Your task to perform on an android device: toggle translation in the chrome app Image 0: 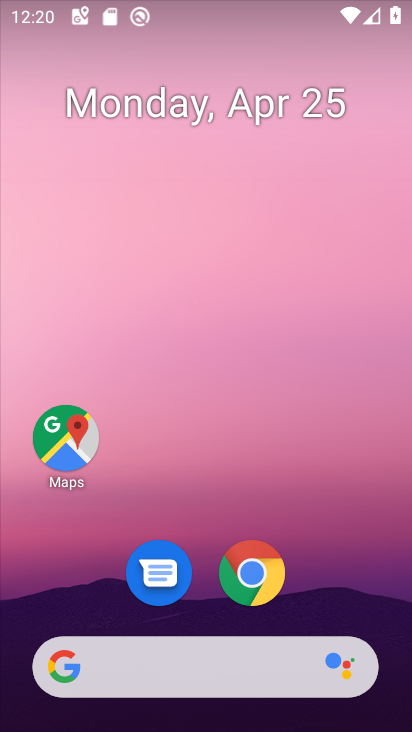
Step 0: press home button
Your task to perform on an android device: toggle translation in the chrome app Image 1: 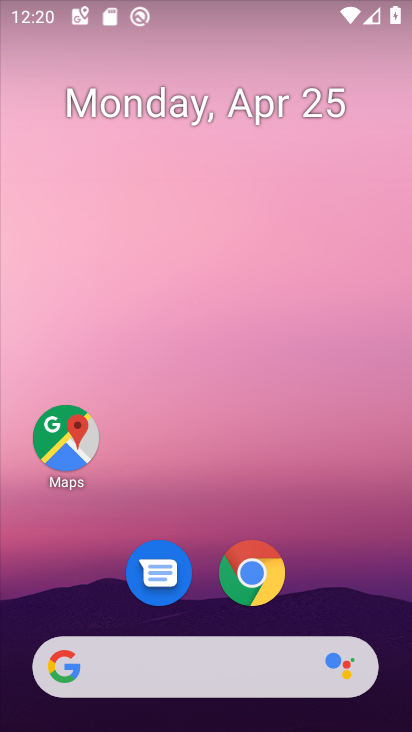
Step 1: drag from (267, 707) to (162, 154)
Your task to perform on an android device: toggle translation in the chrome app Image 2: 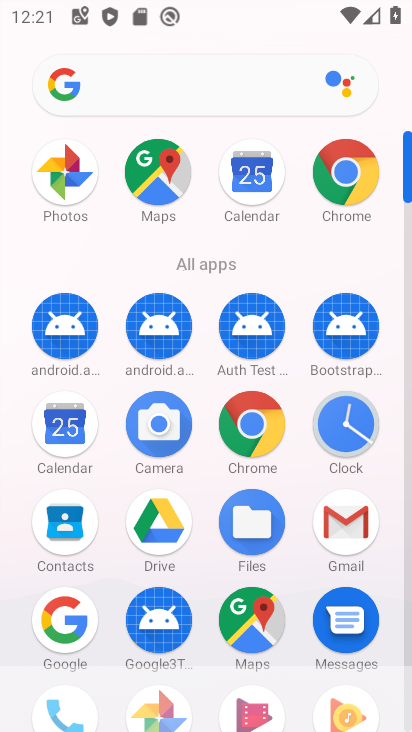
Step 2: click (335, 173)
Your task to perform on an android device: toggle translation in the chrome app Image 3: 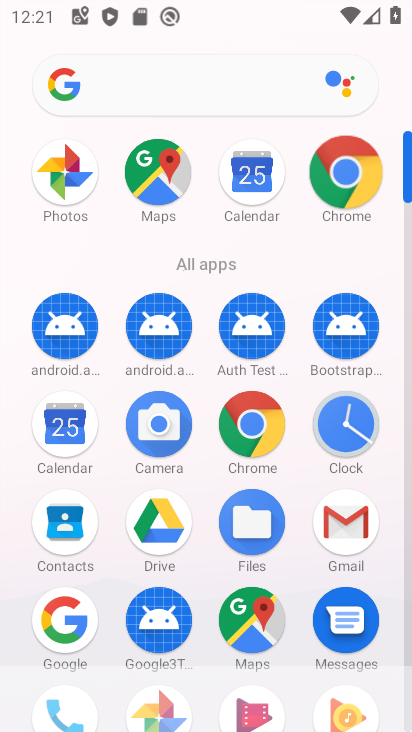
Step 3: click (326, 189)
Your task to perform on an android device: toggle translation in the chrome app Image 4: 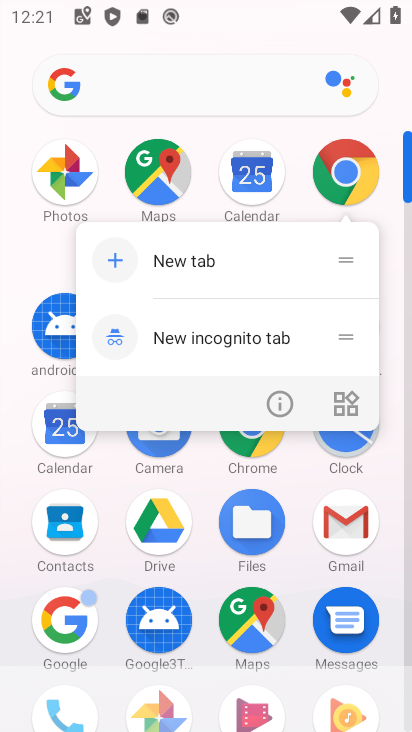
Step 4: click (332, 196)
Your task to perform on an android device: toggle translation in the chrome app Image 5: 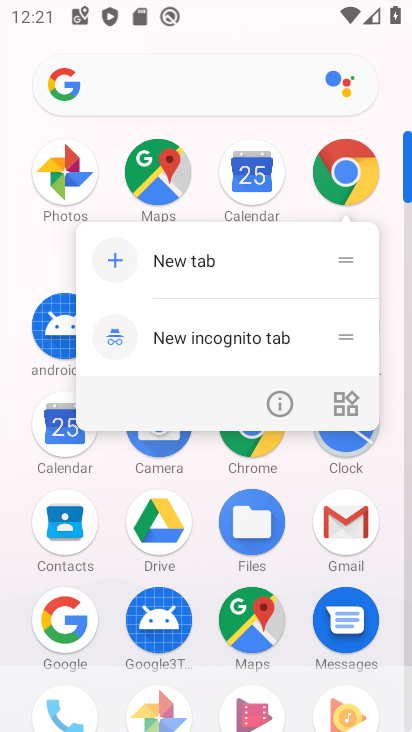
Step 5: click (360, 182)
Your task to perform on an android device: toggle translation in the chrome app Image 6: 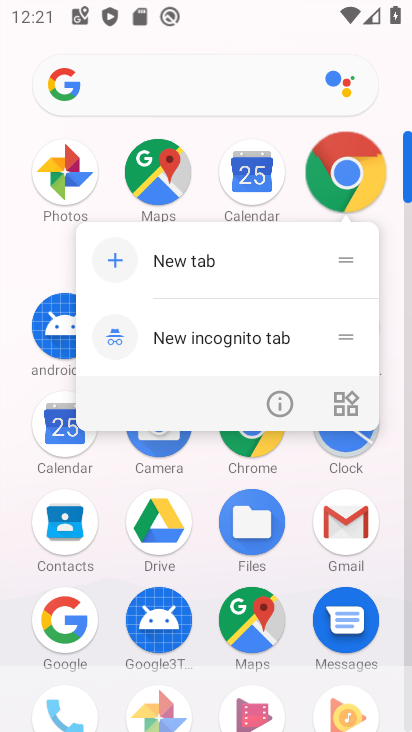
Step 6: click (358, 184)
Your task to perform on an android device: toggle translation in the chrome app Image 7: 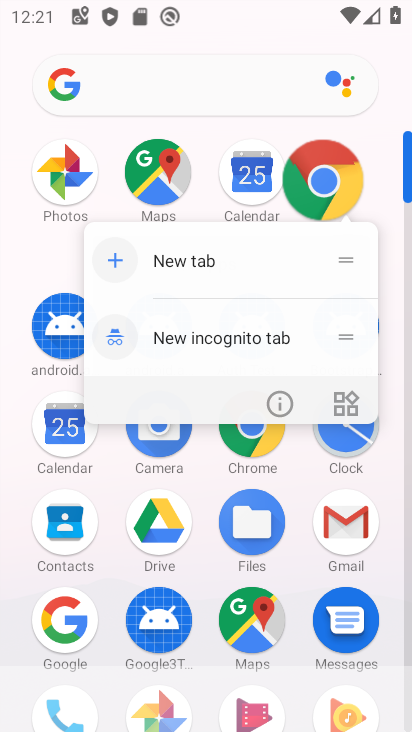
Step 7: click (332, 163)
Your task to perform on an android device: toggle translation in the chrome app Image 8: 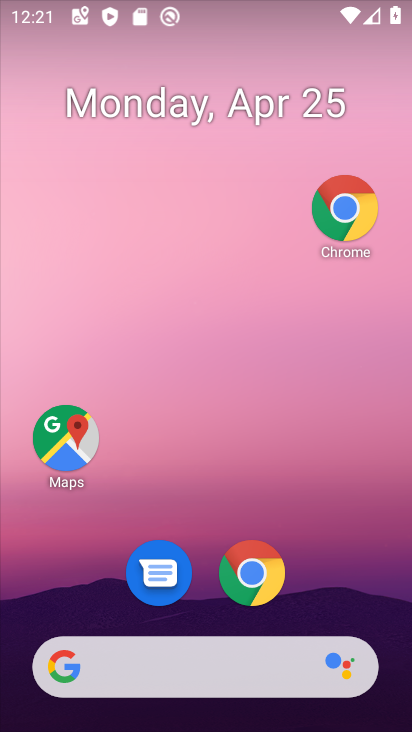
Step 8: click (341, 210)
Your task to perform on an android device: toggle translation in the chrome app Image 9: 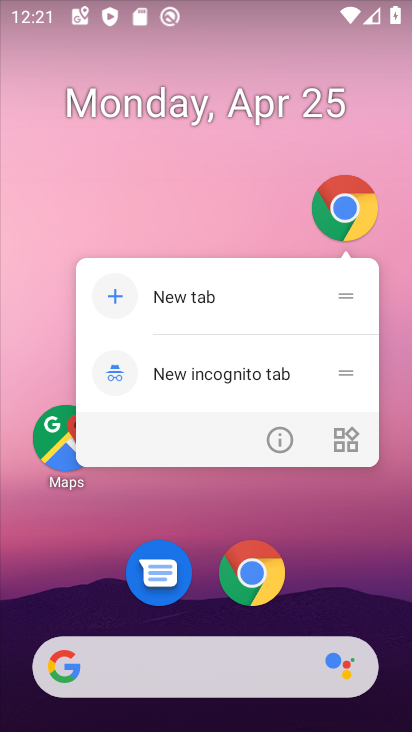
Step 9: click (345, 207)
Your task to perform on an android device: toggle translation in the chrome app Image 10: 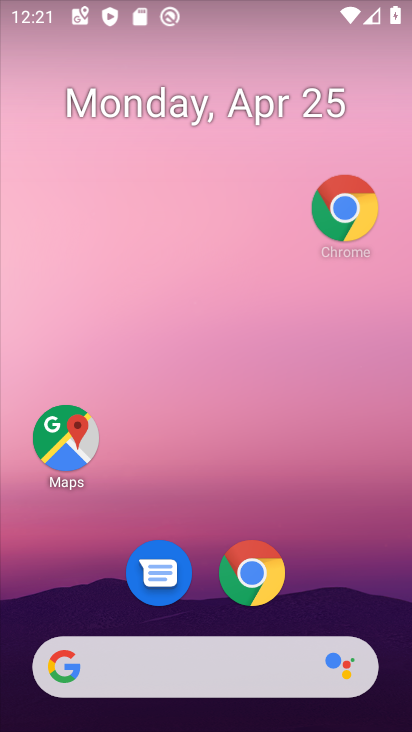
Step 10: click (326, 218)
Your task to perform on an android device: toggle translation in the chrome app Image 11: 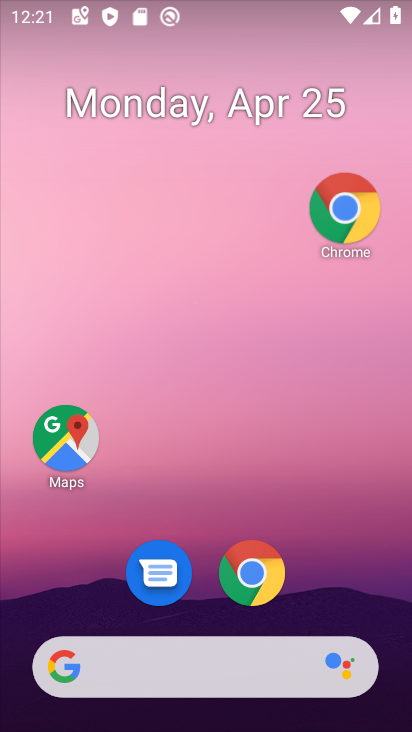
Step 11: click (325, 214)
Your task to perform on an android device: toggle translation in the chrome app Image 12: 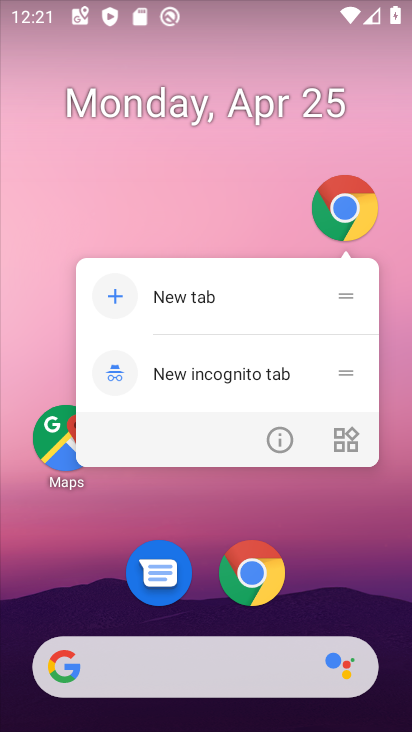
Step 12: click (331, 199)
Your task to perform on an android device: toggle translation in the chrome app Image 13: 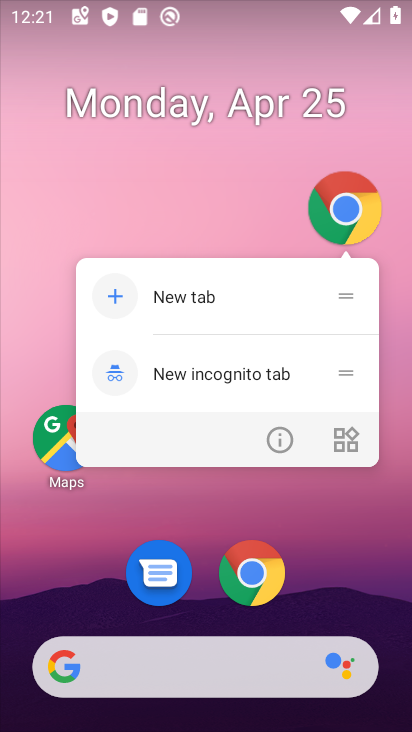
Step 13: drag from (337, 204) to (324, 238)
Your task to perform on an android device: toggle translation in the chrome app Image 14: 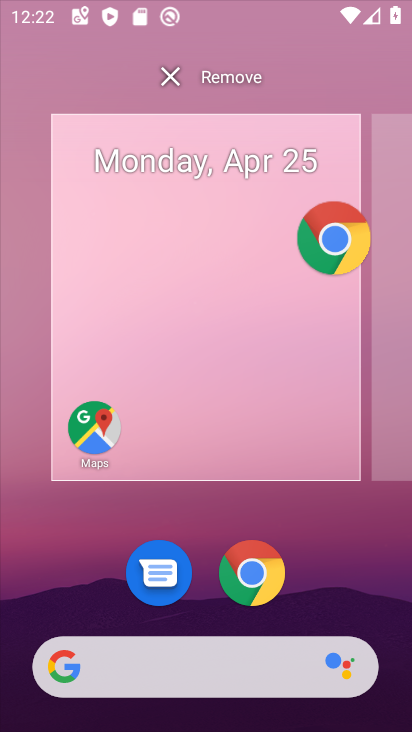
Step 14: click (321, 233)
Your task to perform on an android device: toggle translation in the chrome app Image 15: 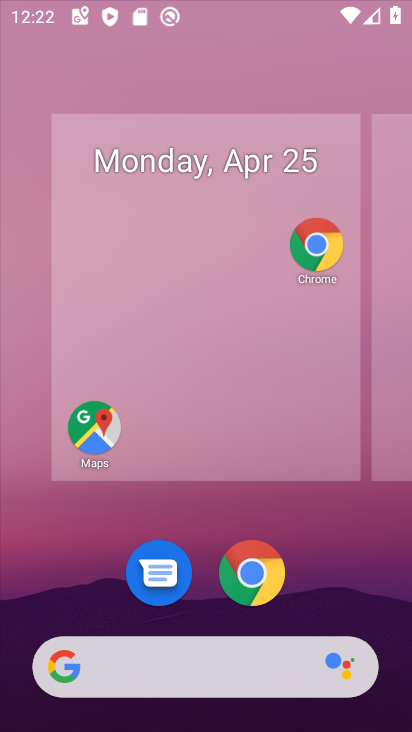
Step 15: click (334, 238)
Your task to perform on an android device: toggle translation in the chrome app Image 16: 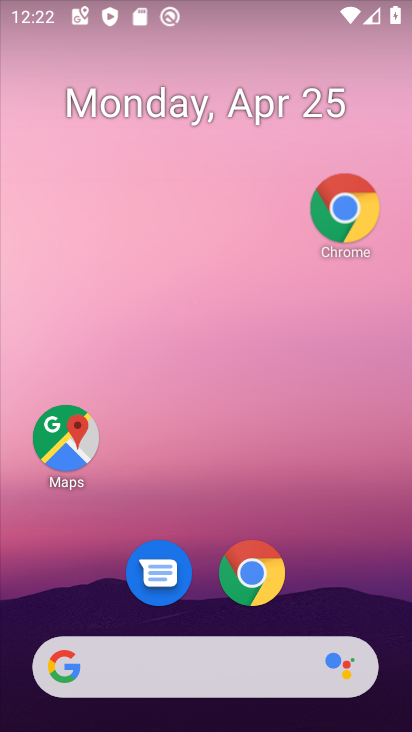
Step 16: click (328, 244)
Your task to perform on an android device: toggle translation in the chrome app Image 17: 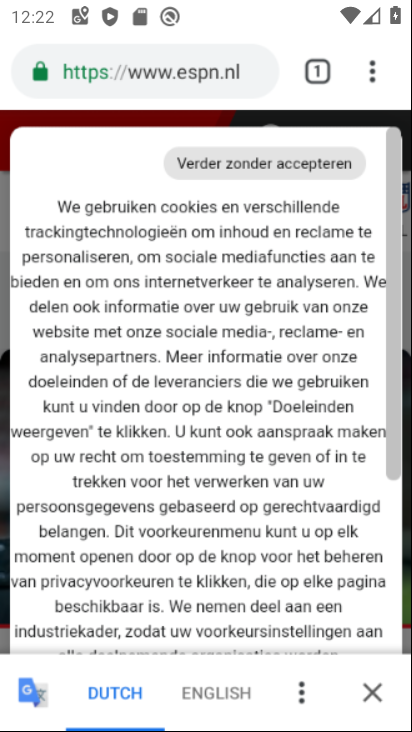
Step 17: click (336, 225)
Your task to perform on an android device: toggle translation in the chrome app Image 18: 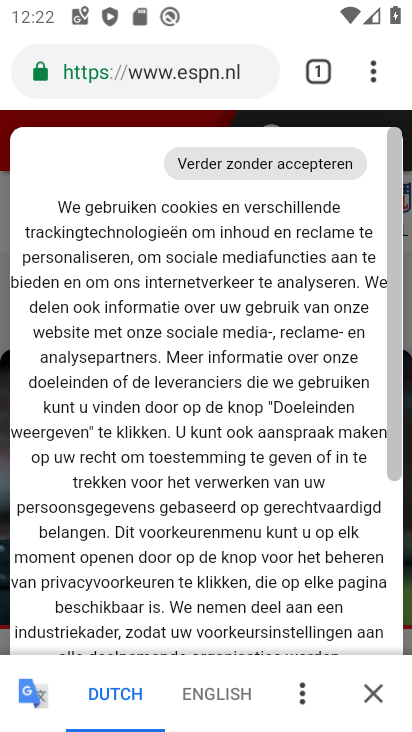
Step 18: drag from (374, 68) to (128, 559)
Your task to perform on an android device: toggle translation in the chrome app Image 19: 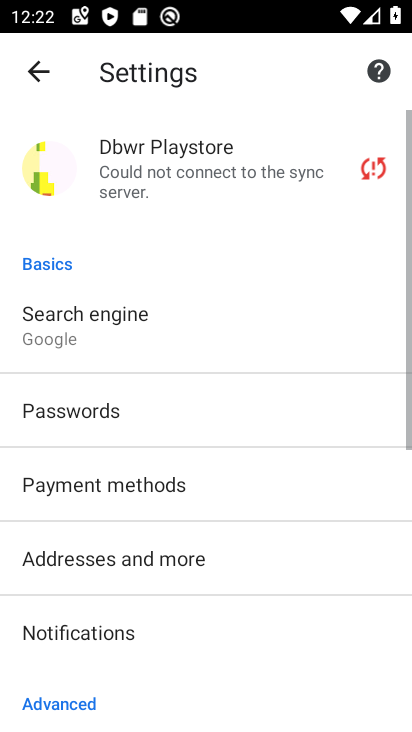
Step 19: drag from (97, 281) to (80, 152)
Your task to perform on an android device: toggle translation in the chrome app Image 20: 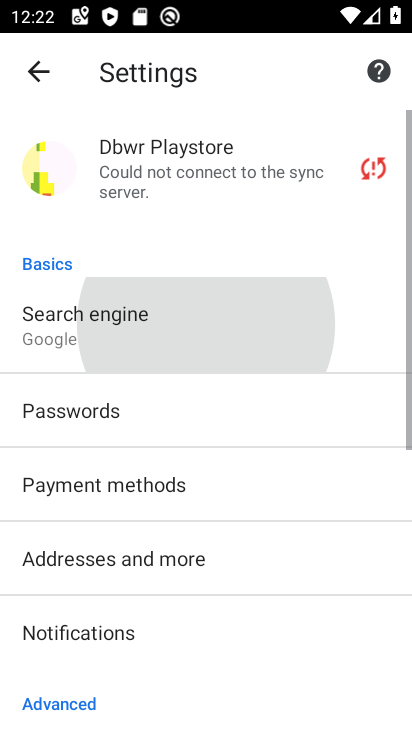
Step 20: drag from (82, 483) to (57, 83)
Your task to perform on an android device: toggle translation in the chrome app Image 21: 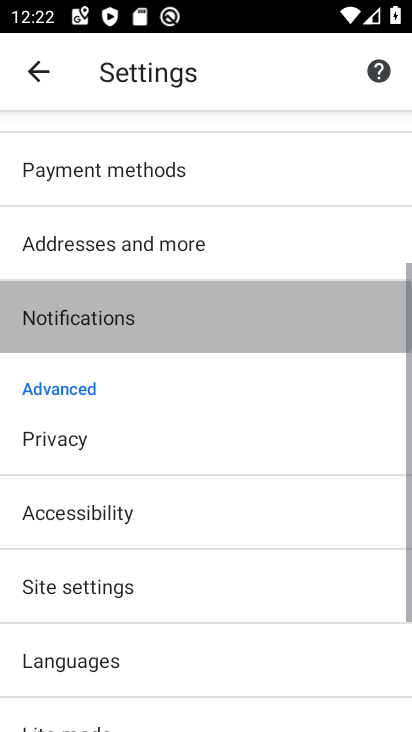
Step 21: drag from (144, 542) to (83, 53)
Your task to perform on an android device: toggle translation in the chrome app Image 22: 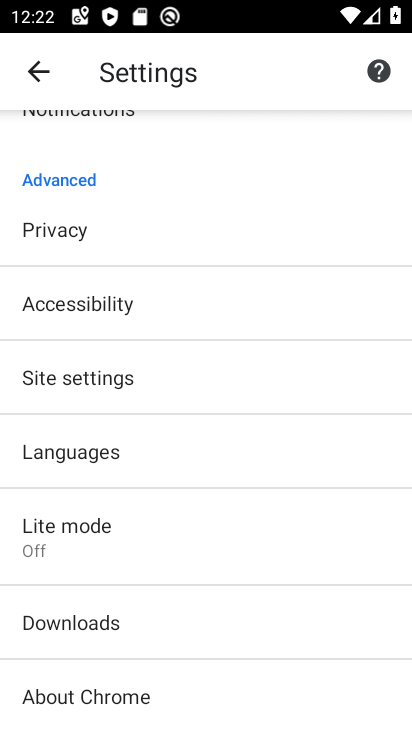
Step 22: click (64, 451)
Your task to perform on an android device: toggle translation in the chrome app Image 23: 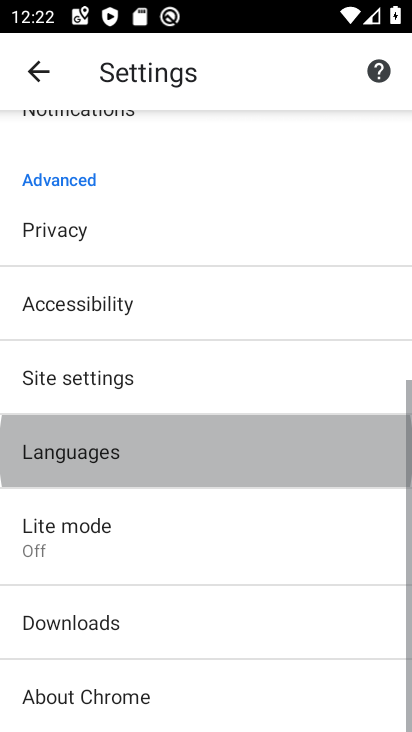
Step 23: click (65, 452)
Your task to perform on an android device: toggle translation in the chrome app Image 24: 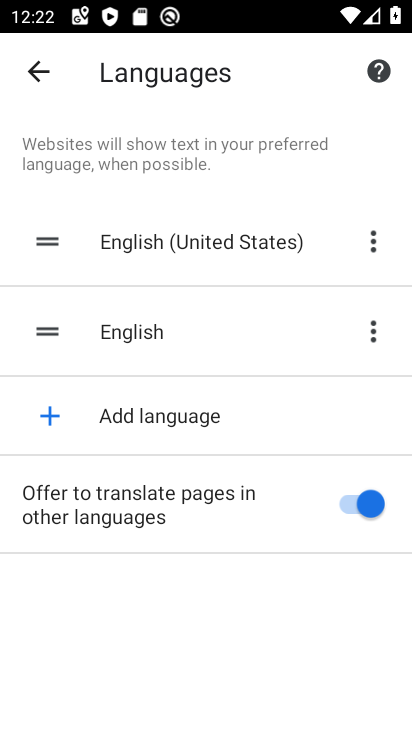
Step 24: click (353, 502)
Your task to perform on an android device: toggle translation in the chrome app Image 25: 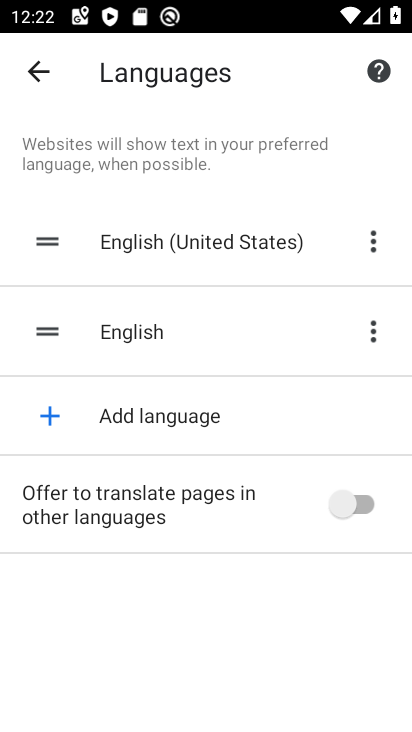
Step 25: task complete